Your task to perform on an android device: open app "Speedtest by Ookla" (install if not already installed) Image 0: 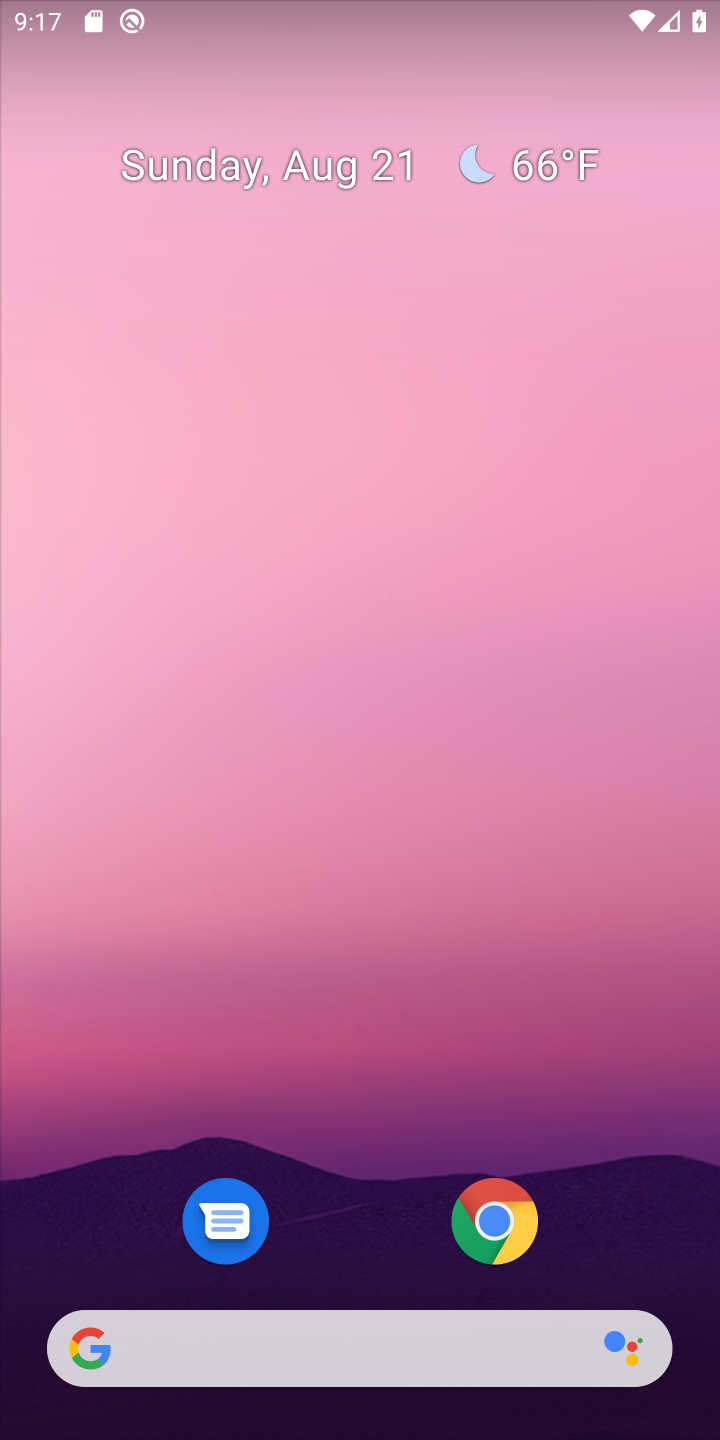
Step 0: drag from (344, 1156) to (319, 356)
Your task to perform on an android device: open app "Speedtest by Ookla" (install if not already installed) Image 1: 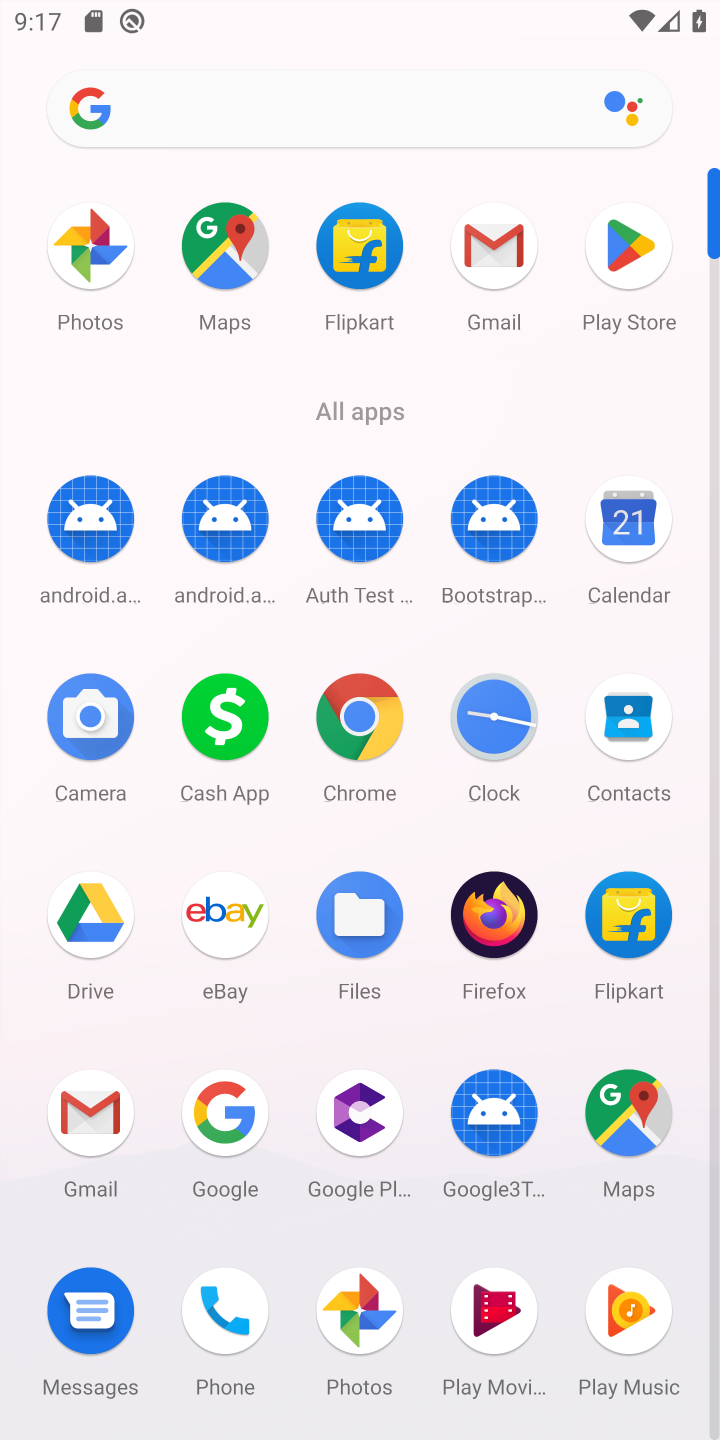
Step 1: click (651, 238)
Your task to perform on an android device: open app "Speedtest by Ookla" (install if not already installed) Image 2: 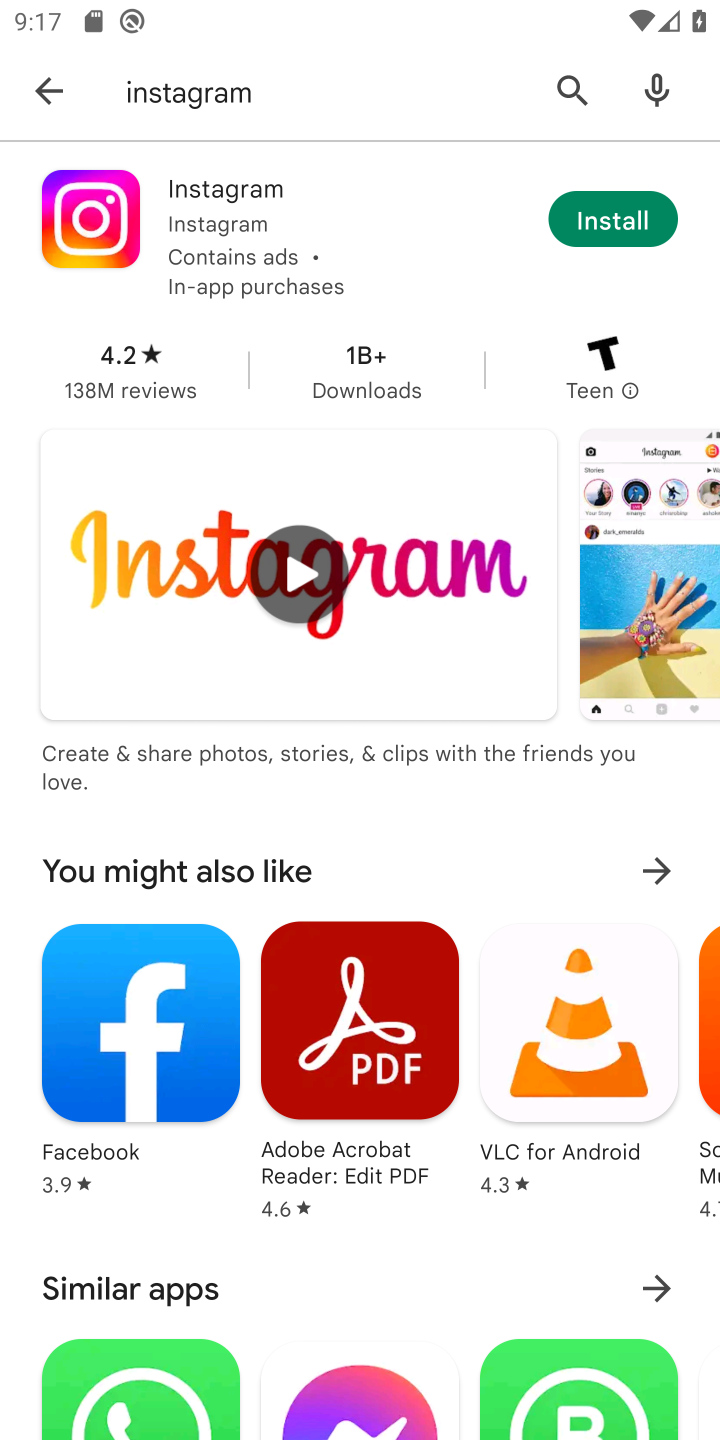
Step 2: click (577, 87)
Your task to perform on an android device: open app "Speedtest by Ookla" (install if not already installed) Image 3: 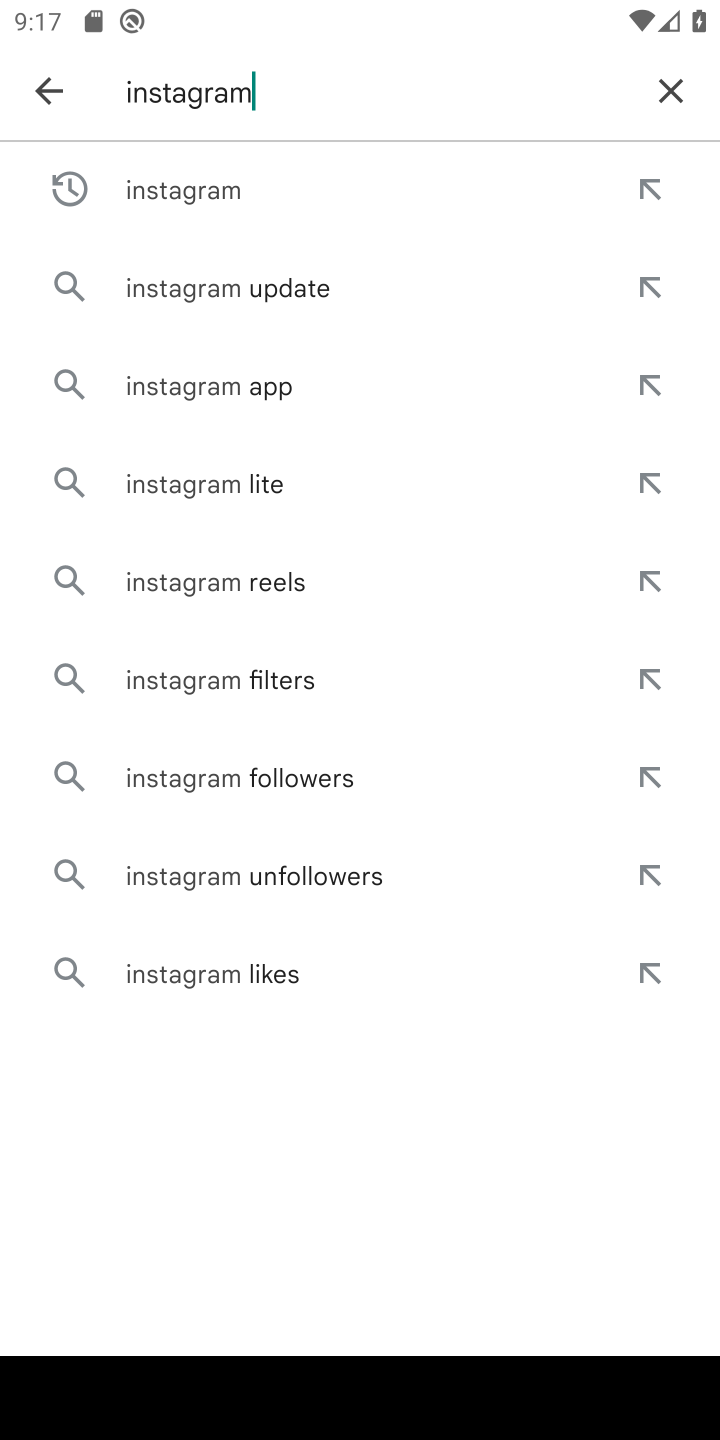
Step 3: click (649, 92)
Your task to perform on an android device: open app "Speedtest by Ookla" (install if not already installed) Image 4: 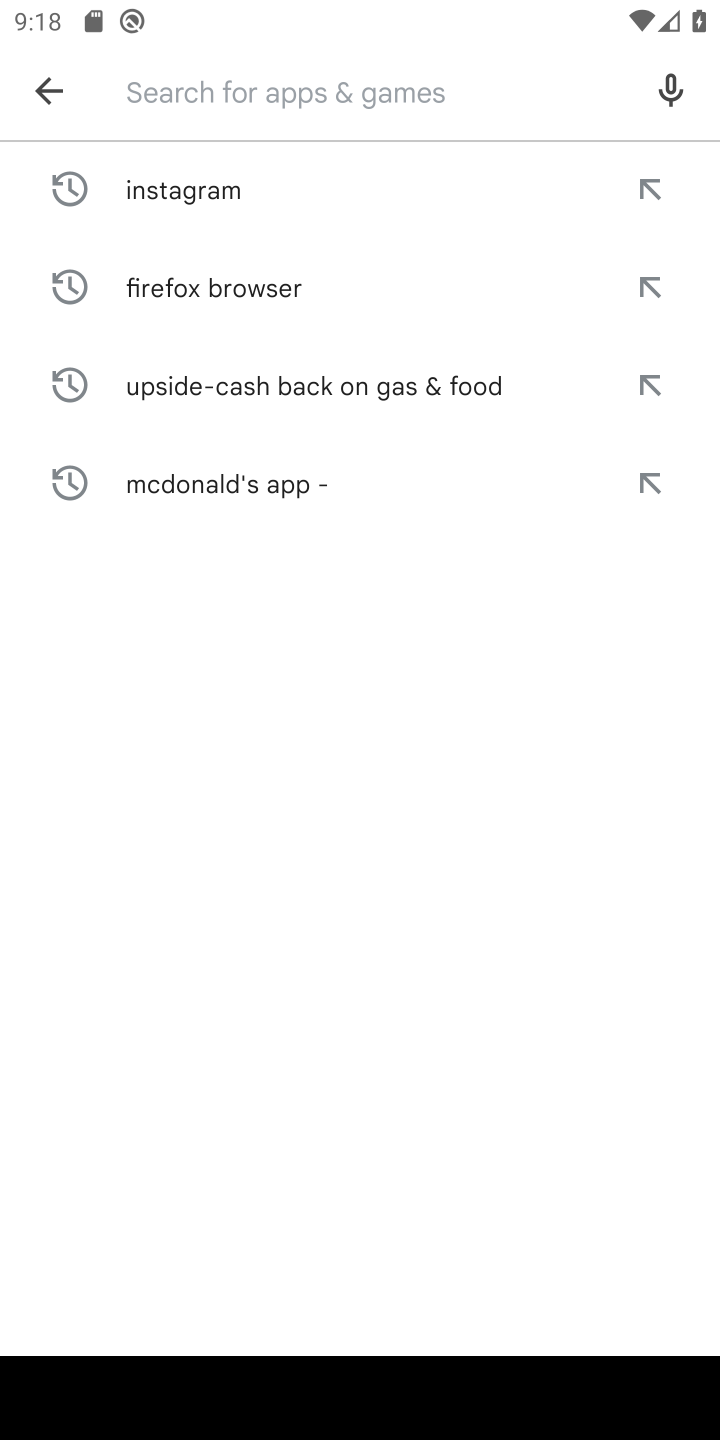
Step 4: type "Speedtest by Ookla"
Your task to perform on an android device: open app "Speedtest by Ookla" (install if not already installed) Image 5: 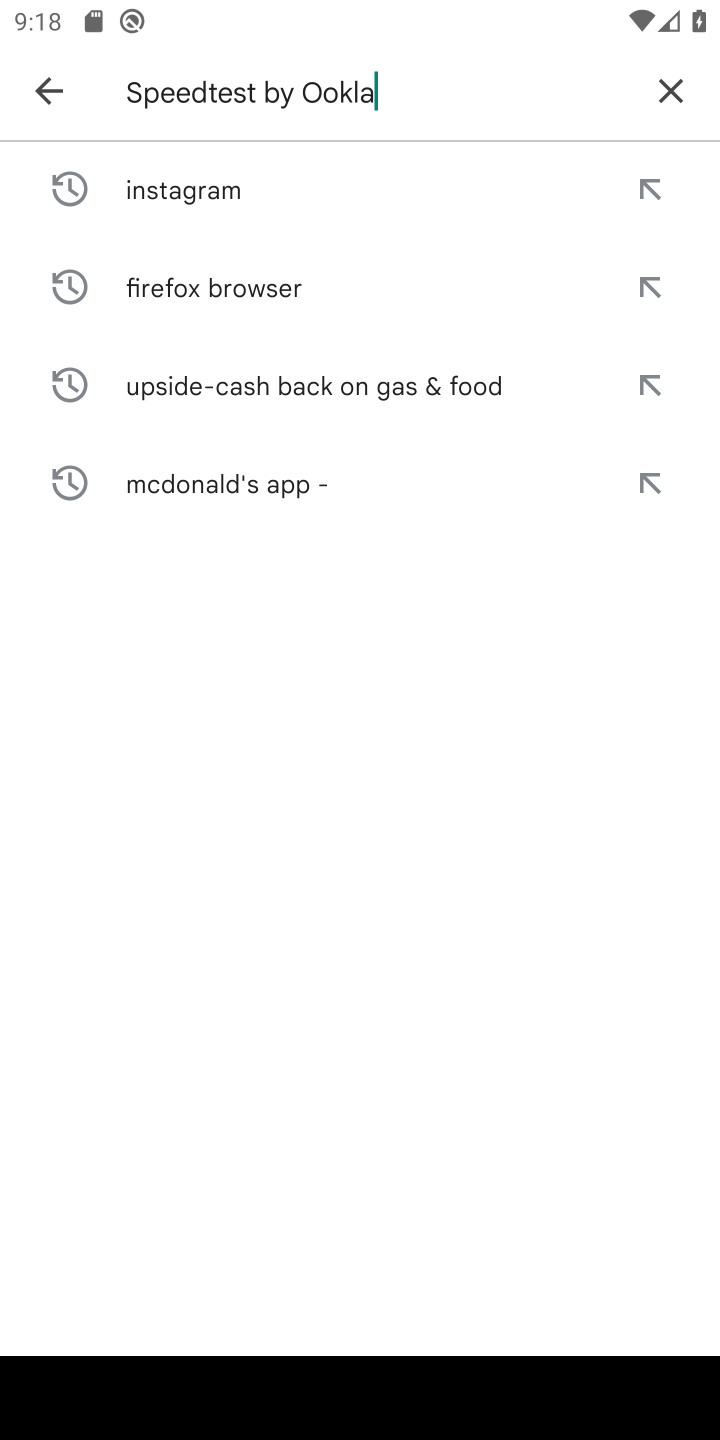
Step 5: type ""
Your task to perform on an android device: open app "Speedtest by Ookla" (install if not already installed) Image 6: 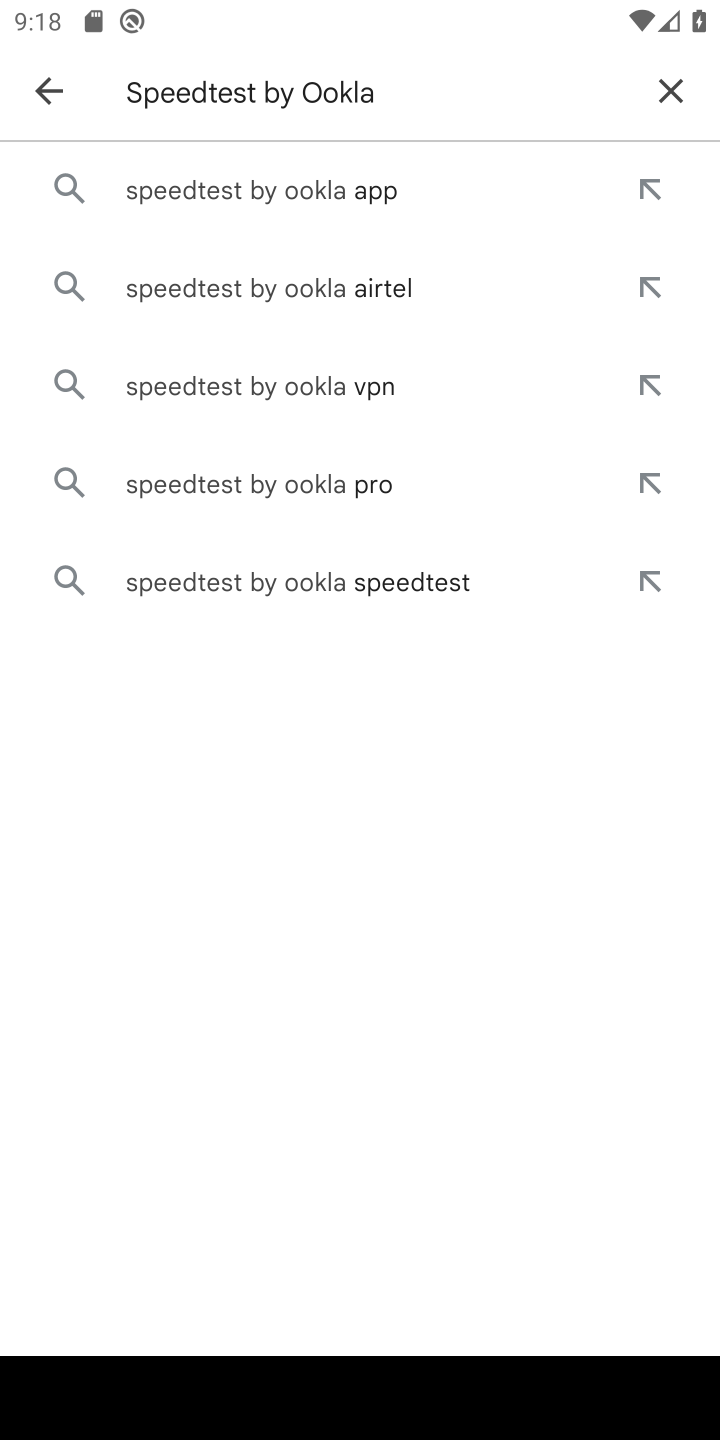
Step 6: click (414, 205)
Your task to perform on an android device: open app "Speedtest by Ookla" (install if not already installed) Image 7: 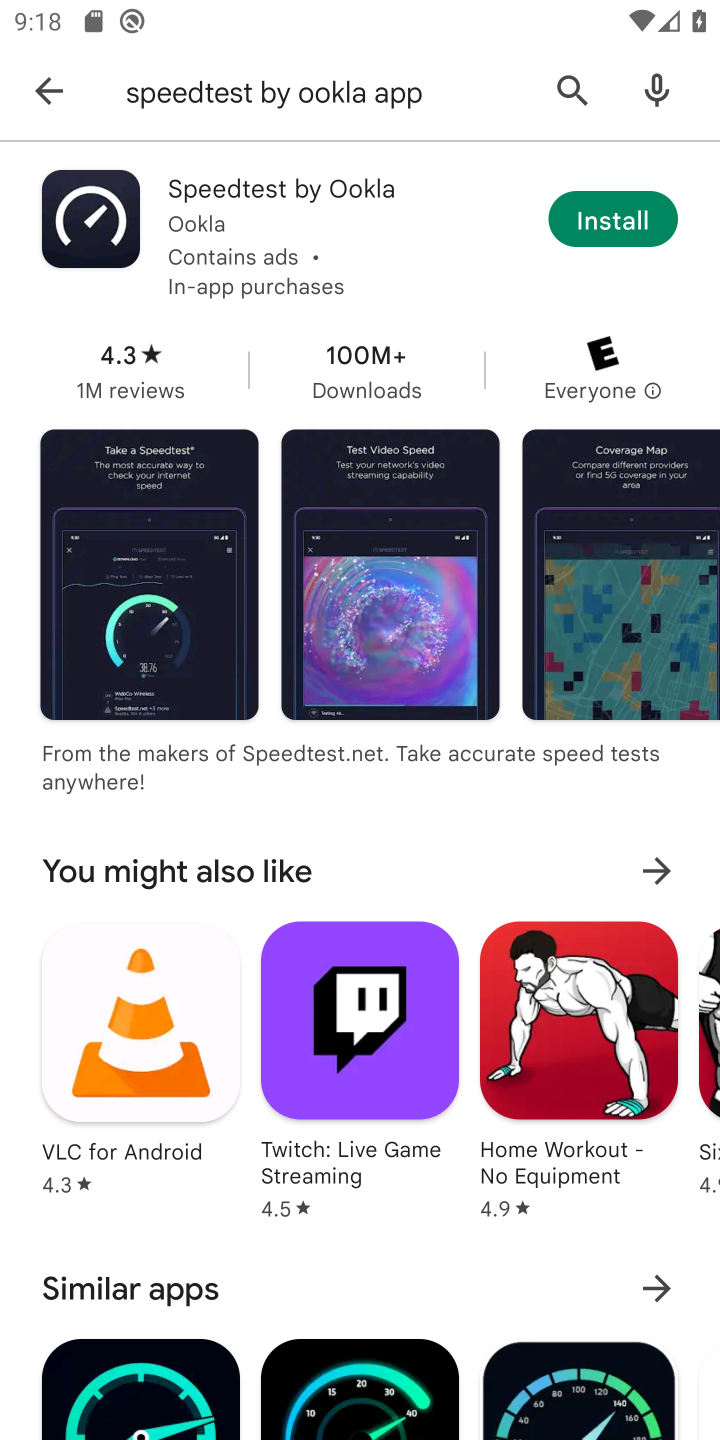
Step 7: click (580, 203)
Your task to perform on an android device: open app "Speedtest by Ookla" (install if not already installed) Image 8: 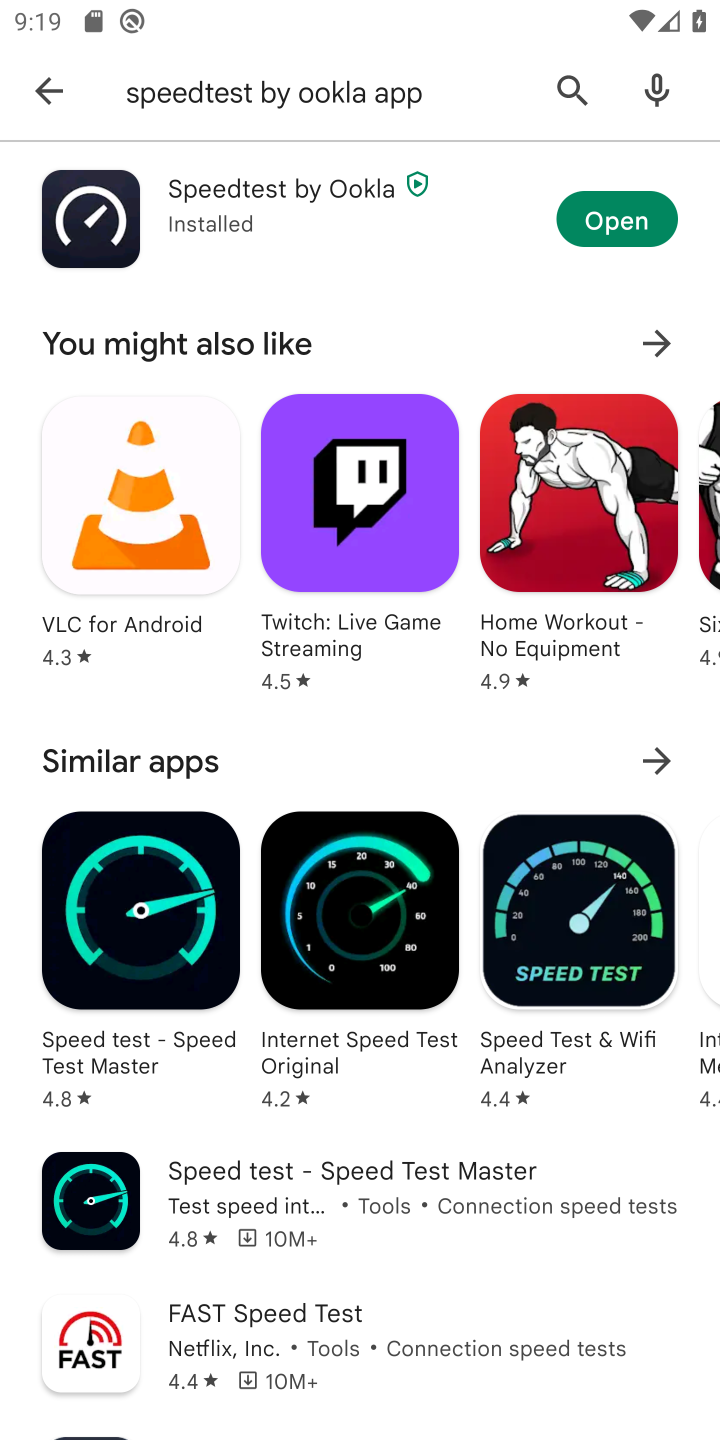
Step 8: click (580, 203)
Your task to perform on an android device: open app "Speedtest by Ookla" (install if not already installed) Image 9: 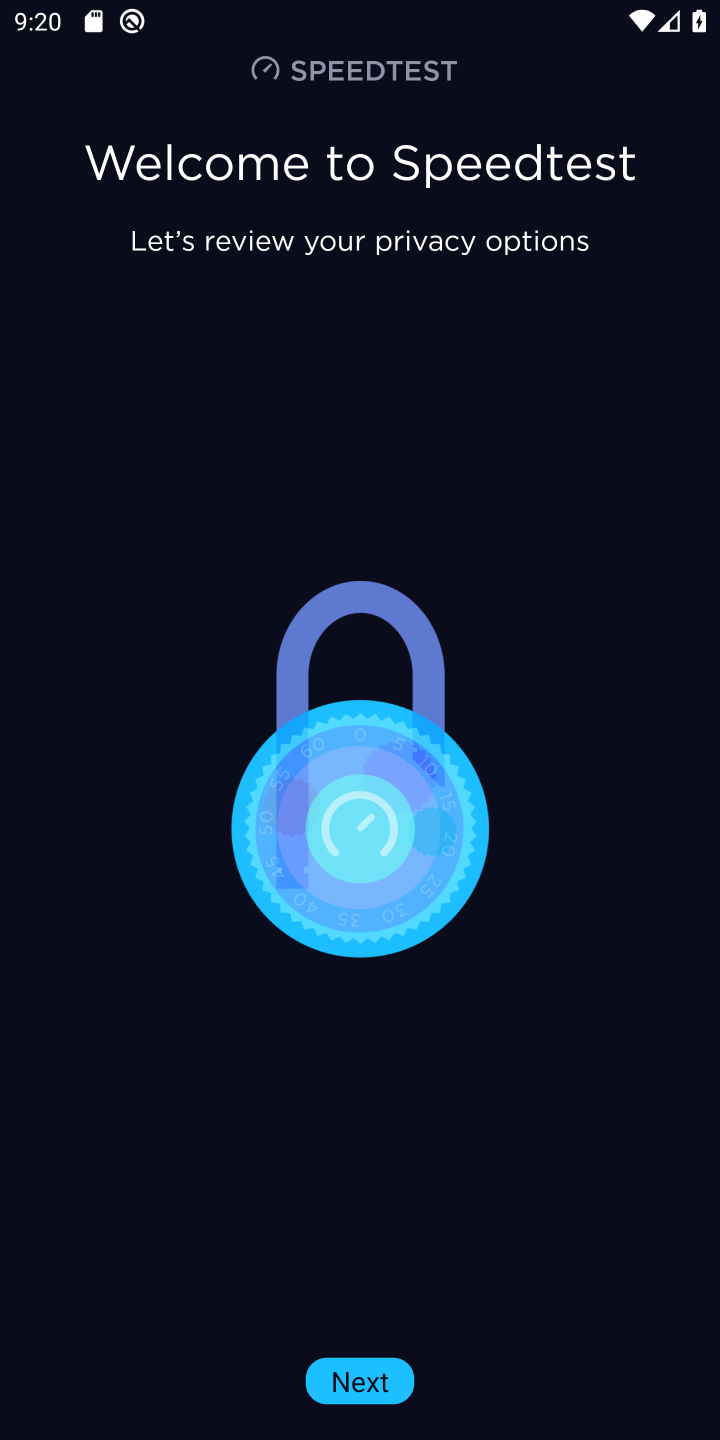
Step 9: task complete